Your task to perform on an android device: search for starred emails in the gmail app Image 0: 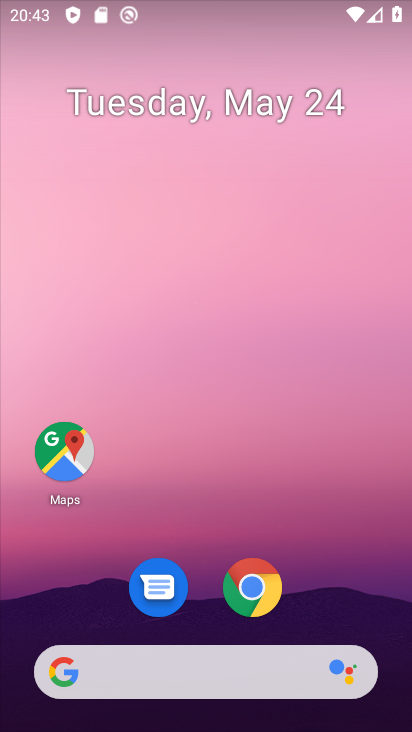
Step 0: drag from (270, 341) to (229, 38)
Your task to perform on an android device: search for starred emails in the gmail app Image 1: 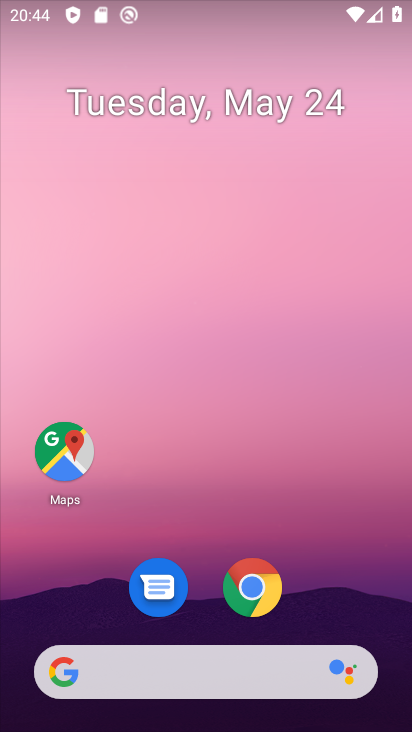
Step 1: drag from (291, 559) to (221, 7)
Your task to perform on an android device: search for starred emails in the gmail app Image 2: 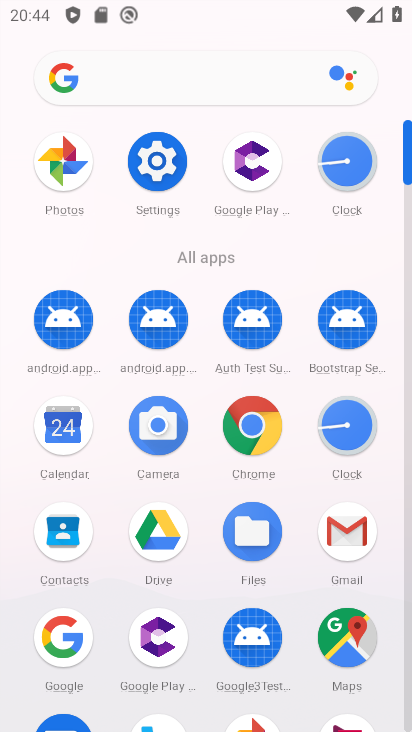
Step 2: drag from (12, 617) to (37, 245)
Your task to perform on an android device: search for starred emails in the gmail app Image 3: 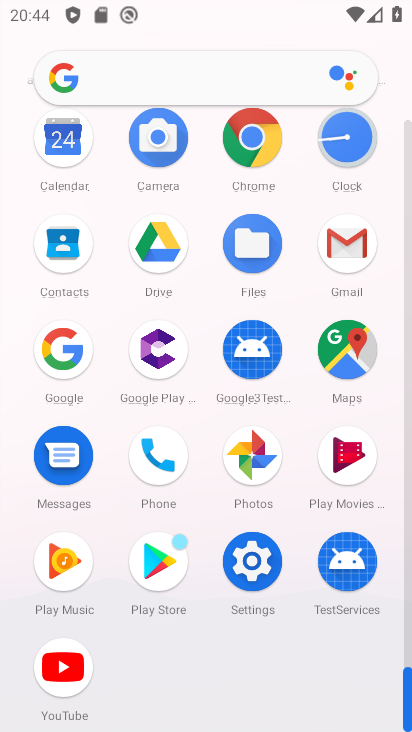
Step 3: click (346, 234)
Your task to perform on an android device: search for starred emails in the gmail app Image 4: 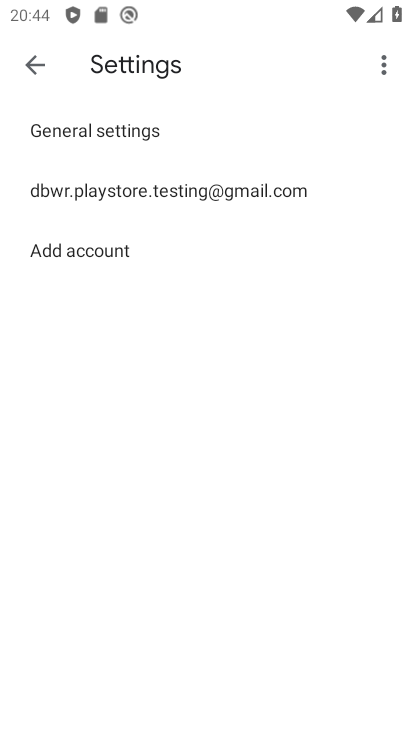
Step 4: click (28, 66)
Your task to perform on an android device: search for starred emails in the gmail app Image 5: 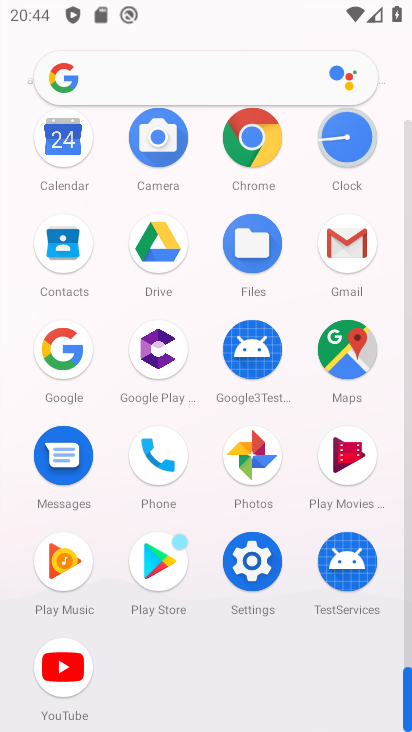
Step 5: click (344, 229)
Your task to perform on an android device: search for starred emails in the gmail app Image 6: 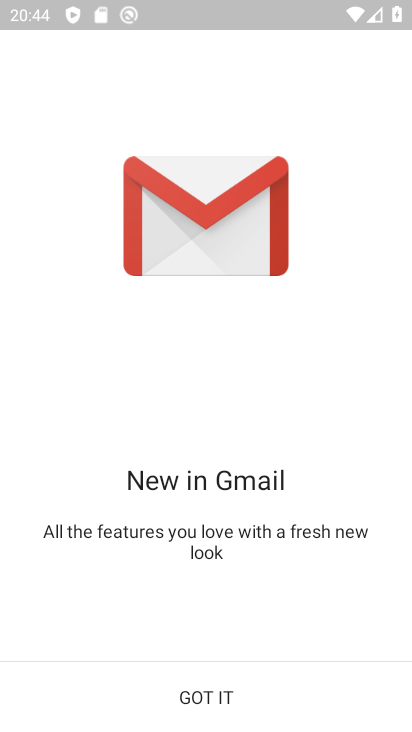
Step 6: click (211, 690)
Your task to perform on an android device: search for starred emails in the gmail app Image 7: 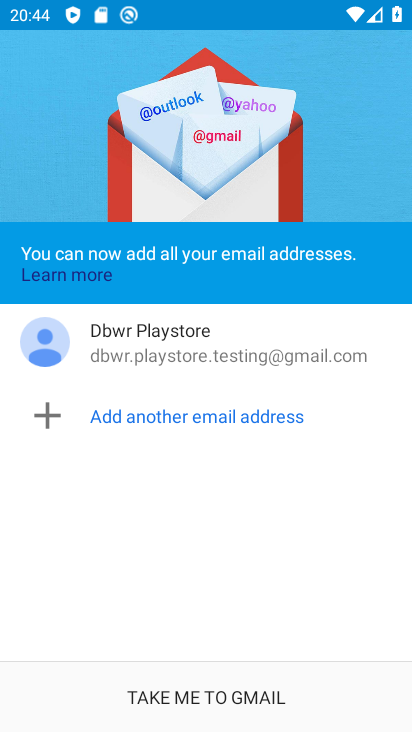
Step 7: click (202, 695)
Your task to perform on an android device: search for starred emails in the gmail app Image 8: 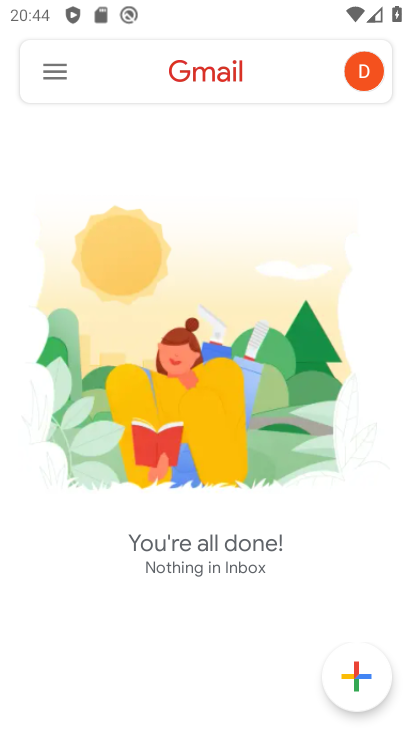
Step 8: click (60, 69)
Your task to perform on an android device: search for starred emails in the gmail app Image 9: 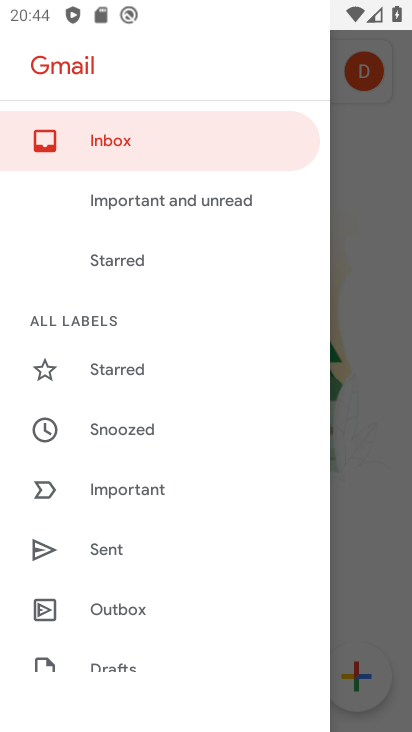
Step 9: click (156, 366)
Your task to perform on an android device: search for starred emails in the gmail app Image 10: 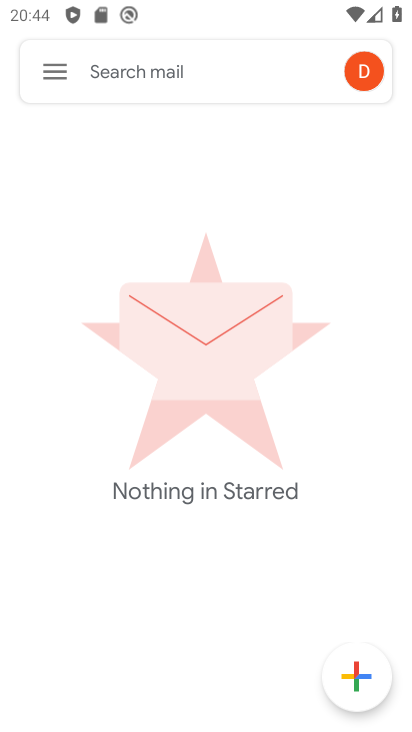
Step 10: task complete